Your task to perform on an android device: What's the weather going to be tomorrow? Image 0: 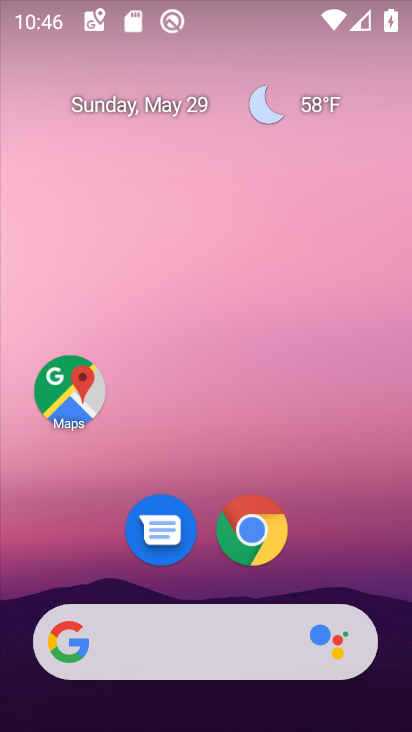
Step 0: click (308, 110)
Your task to perform on an android device: What's the weather going to be tomorrow? Image 1: 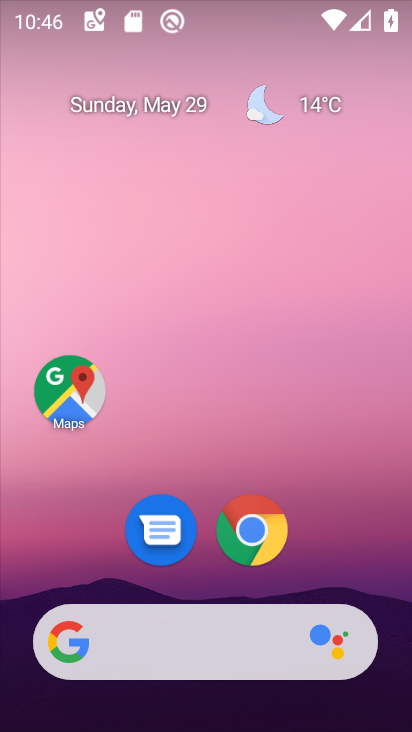
Step 1: click (284, 98)
Your task to perform on an android device: What's the weather going to be tomorrow? Image 2: 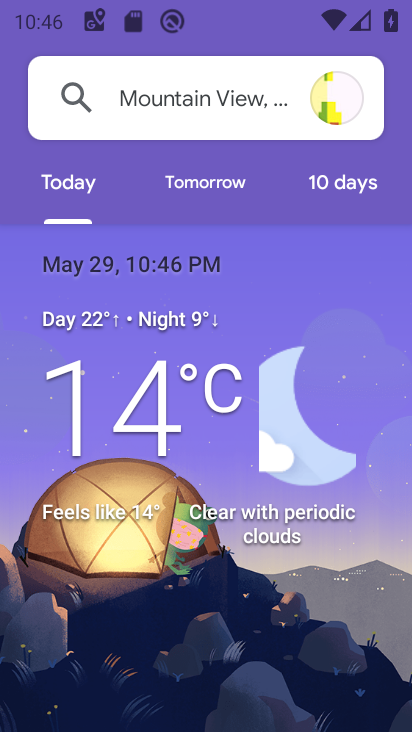
Step 2: click (191, 185)
Your task to perform on an android device: What's the weather going to be tomorrow? Image 3: 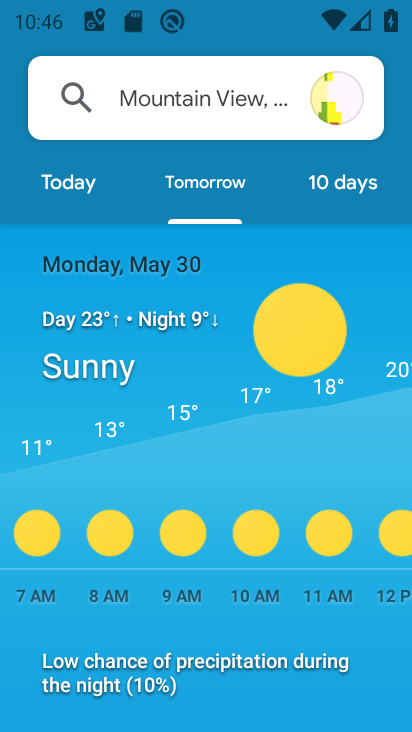
Step 3: task complete